Your task to perform on an android device: Open Youtube and go to "Your channel" Image 0: 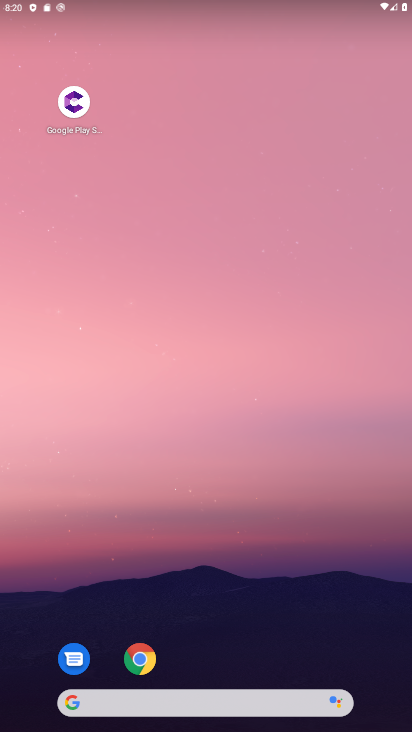
Step 0: drag from (320, 685) to (371, 29)
Your task to perform on an android device: Open Youtube and go to "Your channel" Image 1: 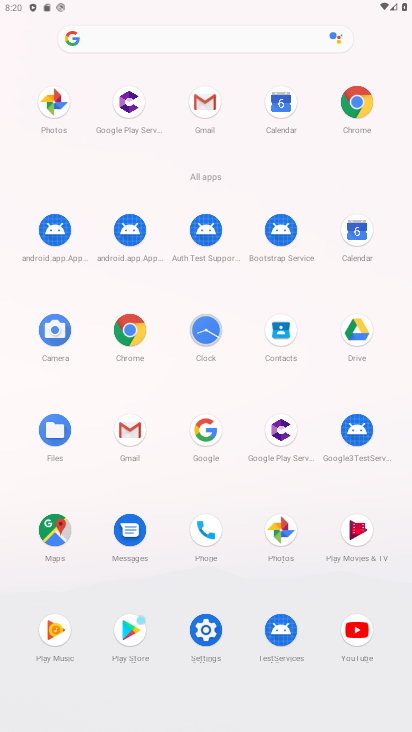
Step 1: click (359, 622)
Your task to perform on an android device: Open Youtube and go to "Your channel" Image 2: 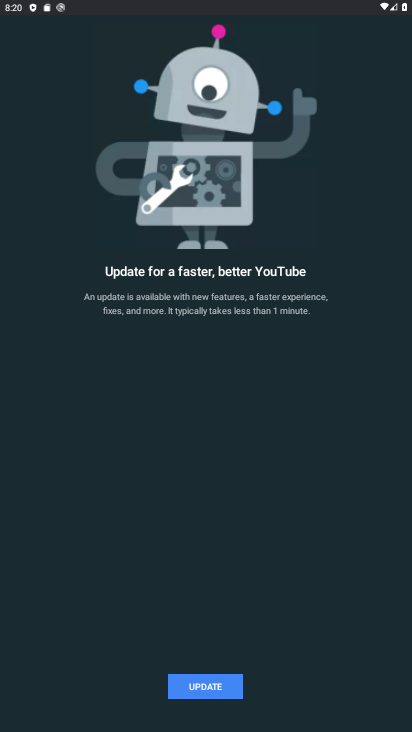
Step 2: click (224, 698)
Your task to perform on an android device: Open Youtube and go to "Your channel" Image 3: 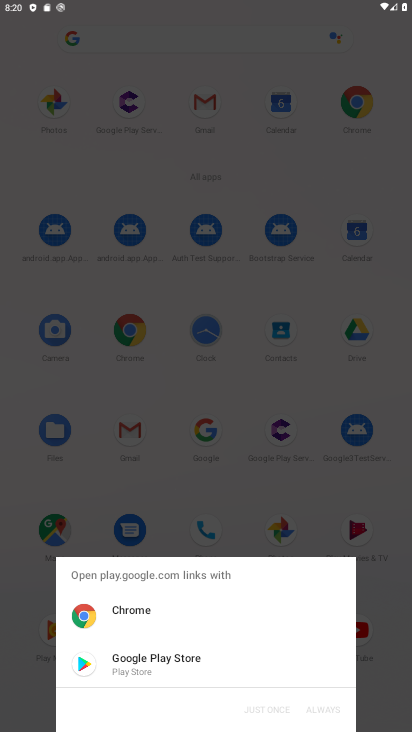
Step 3: click (164, 672)
Your task to perform on an android device: Open Youtube and go to "Your channel" Image 4: 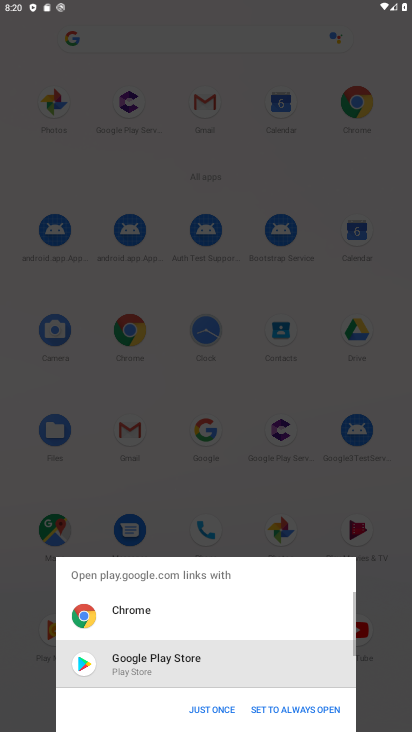
Step 4: click (207, 709)
Your task to perform on an android device: Open Youtube and go to "Your channel" Image 5: 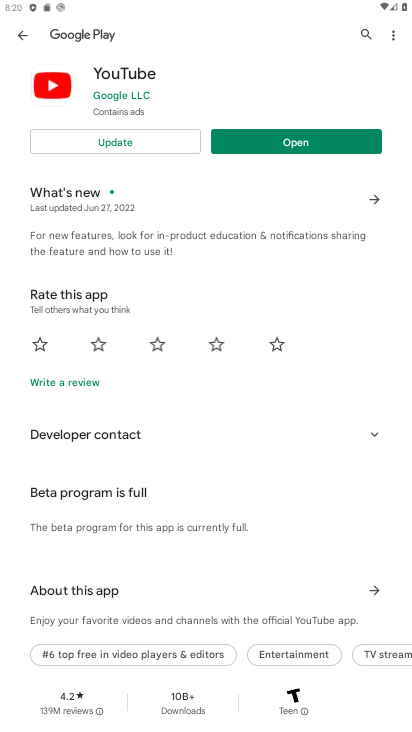
Step 5: click (126, 138)
Your task to perform on an android device: Open Youtube and go to "Your channel" Image 6: 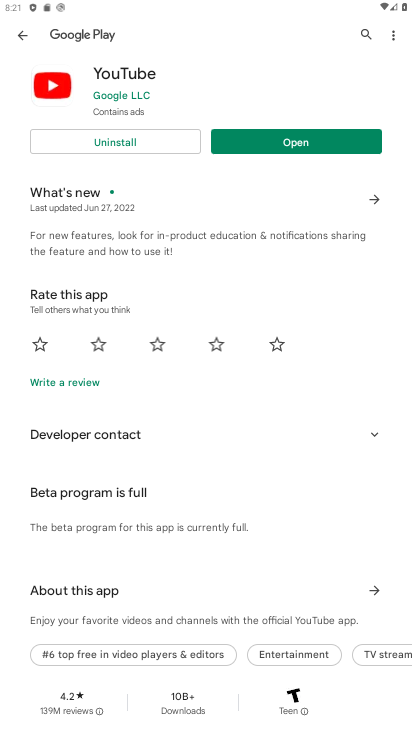
Step 6: click (327, 145)
Your task to perform on an android device: Open Youtube and go to "Your channel" Image 7: 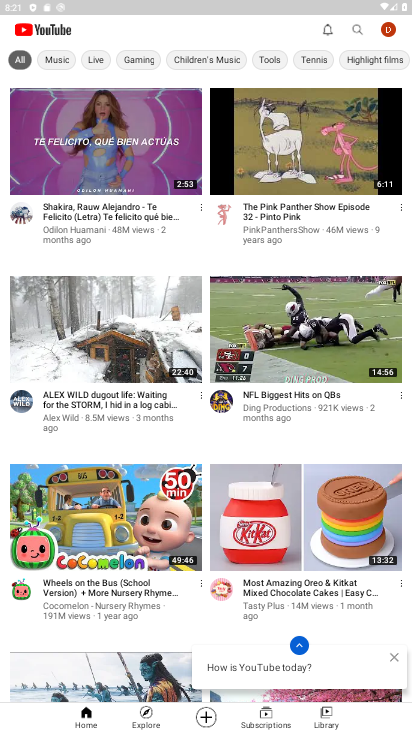
Step 7: click (379, 31)
Your task to perform on an android device: Open Youtube and go to "Your channel" Image 8: 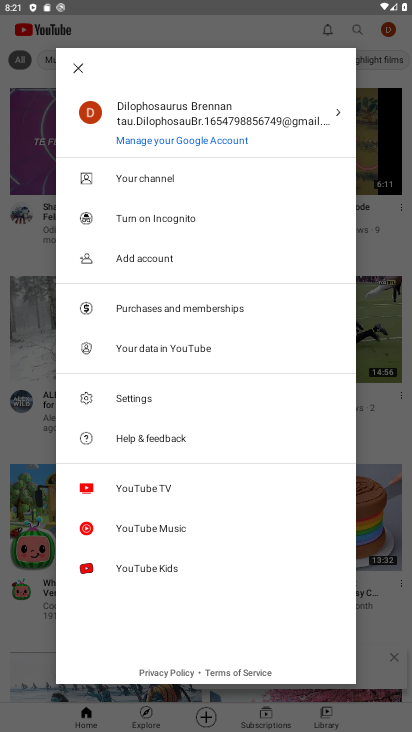
Step 8: click (167, 173)
Your task to perform on an android device: Open Youtube and go to "Your channel" Image 9: 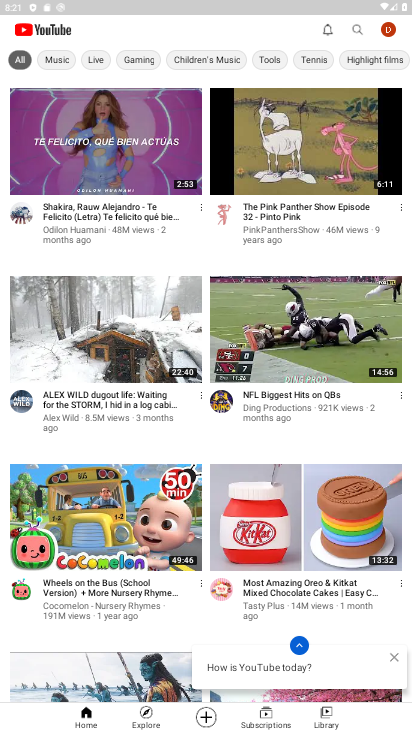
Step 9: click (384, 26)
Your task to perform on an android device: Open Youtube and go to "Your channel" Image 10: 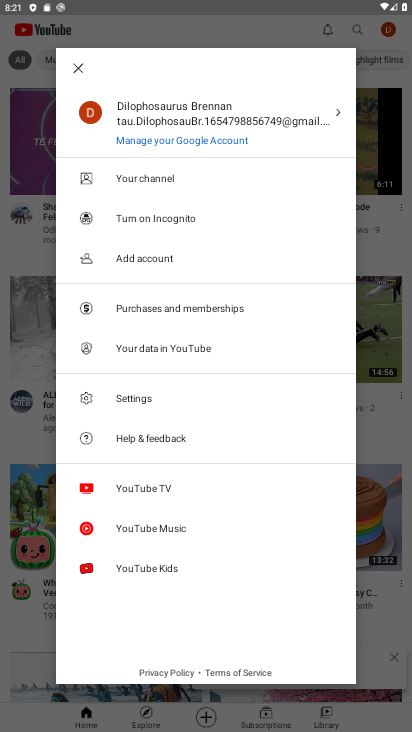
Step 10: click (186, 181)
Your task to perform on an android device: Open Youtube and go to "Your channel" Image 11: 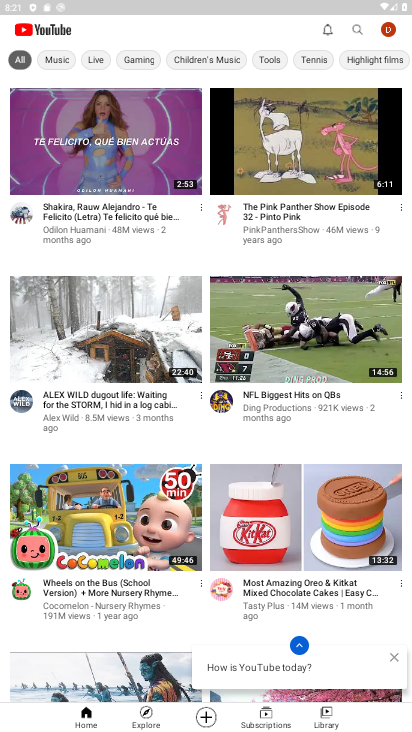
Step 11: task complete